Your task to perform on an android device: open a bookmark in the chrome app Image 0: 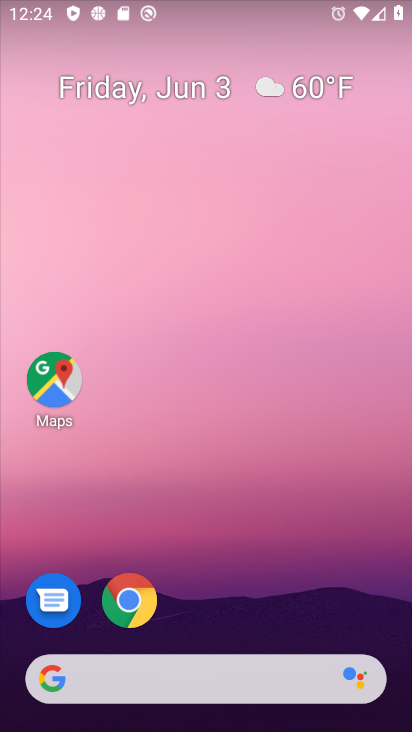
Step 0: click (125, 605)
Your task to perform on an android device: open a bookmark in the chrome app Image 1: 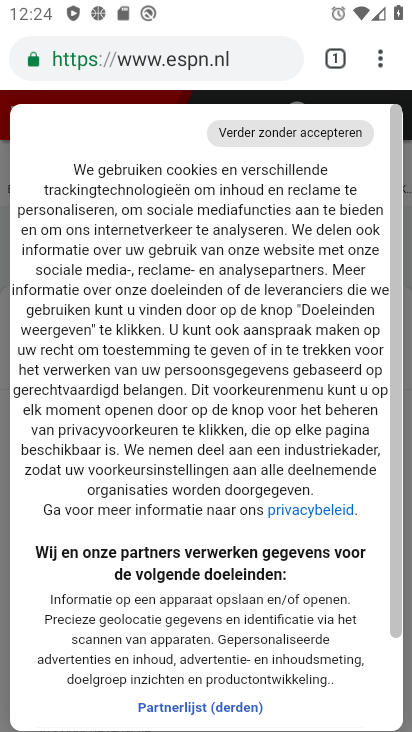
Step 1: task complete